Your task to perform on an android device: turn off notifications settings in the gmail app Image 0: 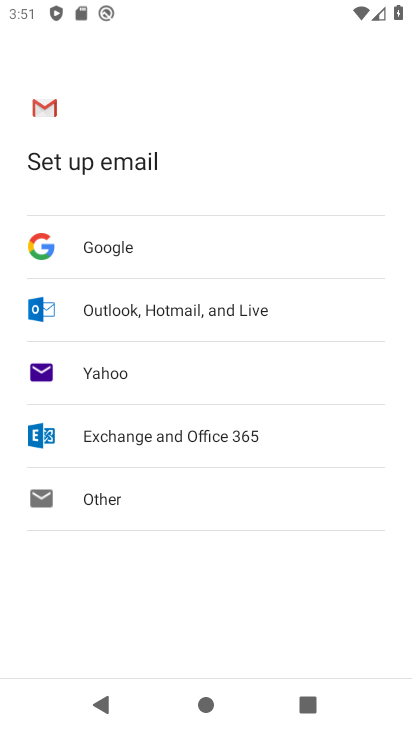
Step 0: press back button
Your task to perform on an android device: turn off notifications settings in the gmail app Image 1: 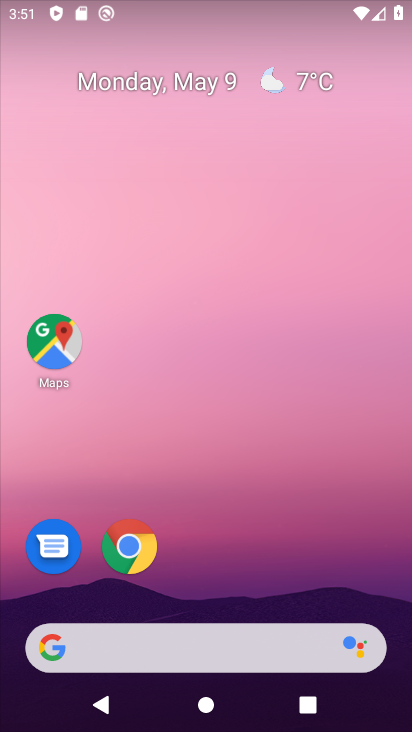
Step 1: drag from (211, 609) to (292, 218)
Your task to perform on an android device: turn off notifications settings in the gmail app Image 2: 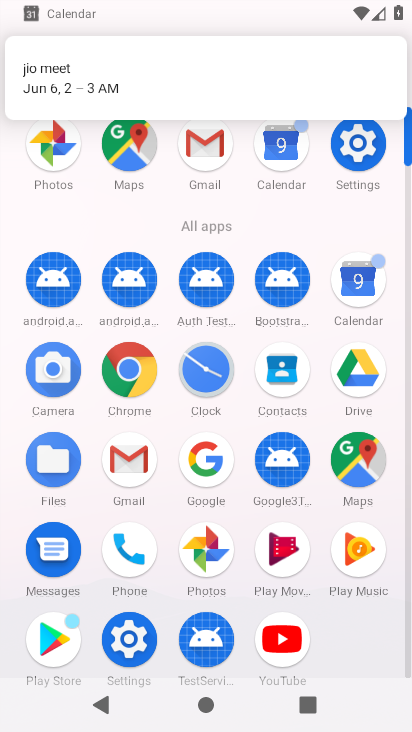
Step 2: click (135, 464)
Your task to perform on an android device: turn off notifications settings in the gmail app Image 3: 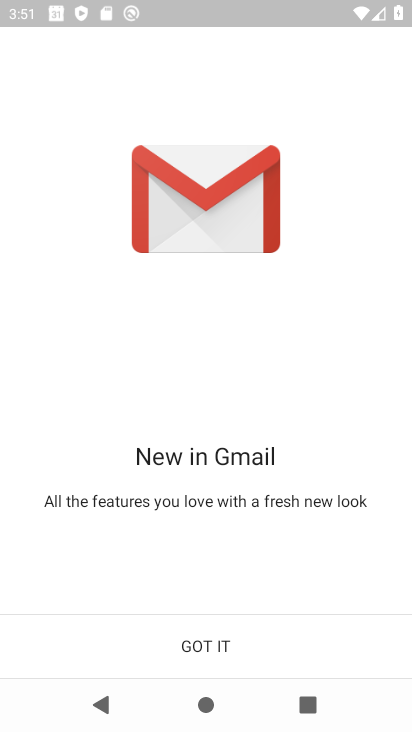
Step 3: click (233, 647)
Your task to perform on an android device: turn off notifications settings in the gmail app Image 4: 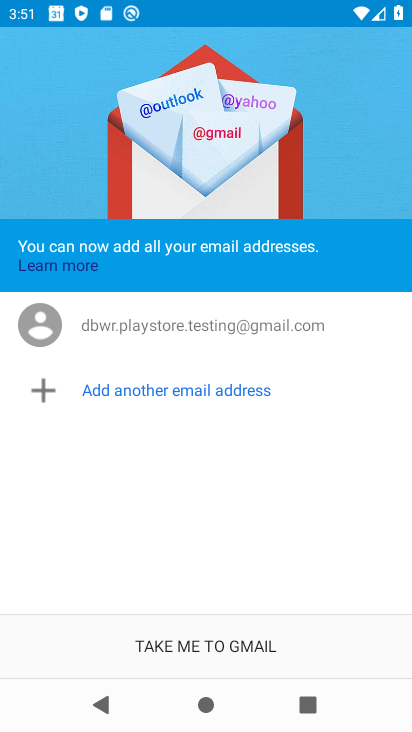
Step 4: click (233, 647)
Your task to perform on an android device: turn off notifications settings in the gmail app Image 5: 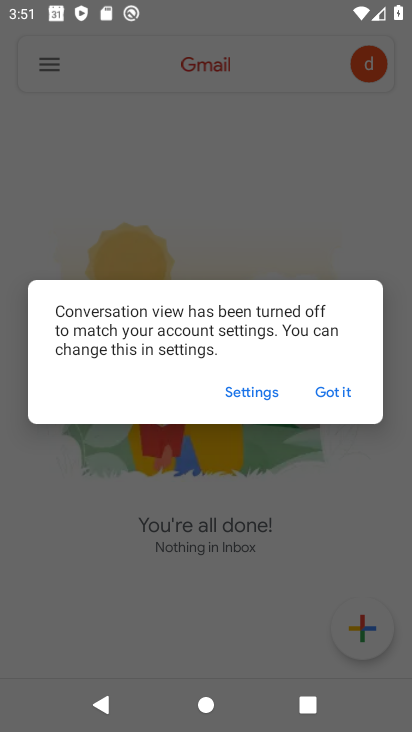
Step 5: click (362, 388)
Your task to perform on an android device: turn off notifications settings in the gmail app Image 6: 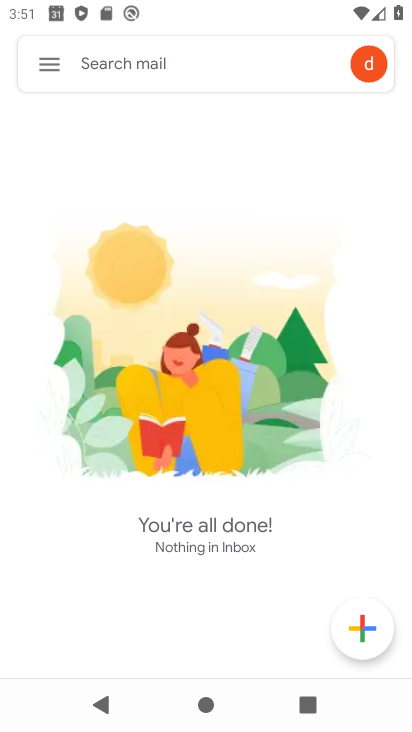
Step 6: click (61, 75)
Your task to perform on an android device: turn off notifications settings in the gmail app Image 7: 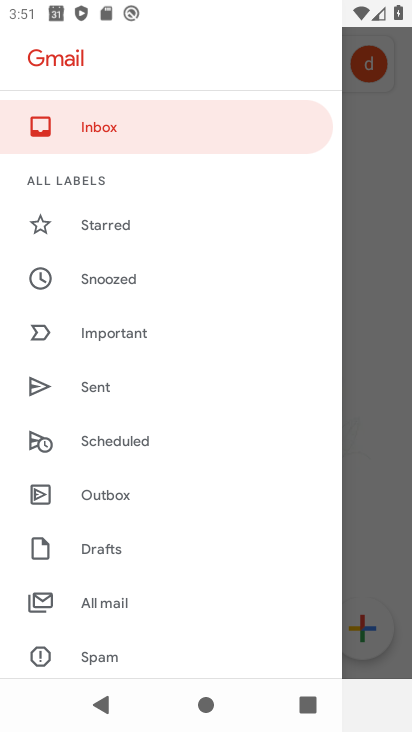
Step 7: drag from (136, 627) to (179, 397)
Your task to perform on an android device: turn off notifications settings in the gmail app Image 8: 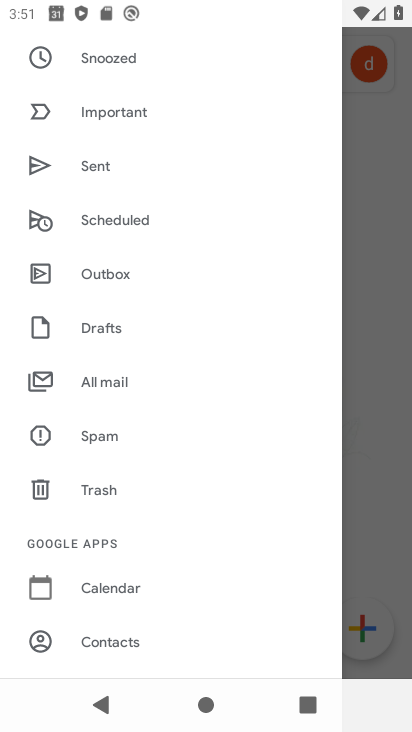
Step 8: drag from (173, 584) to (218, 437)
Your task to perform on an android device: turn off notifications settings in the gmail app Image 9: 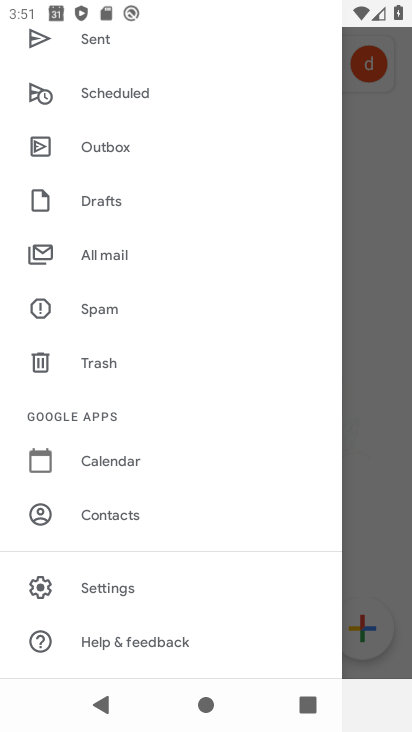
Step 9: click (125, 580)
Your task to perform on an android device: turn off notifications settings in the gmail app Image 10: 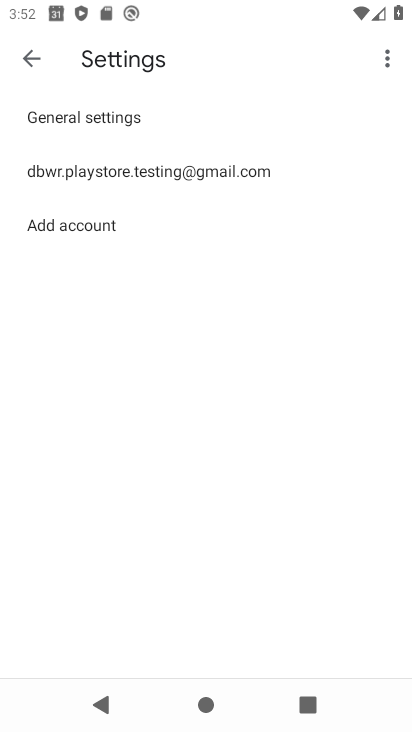
Step 10: click (278, 177)
Your task to perform on an android device: turn off notifications settings in the gmail app Image 11: 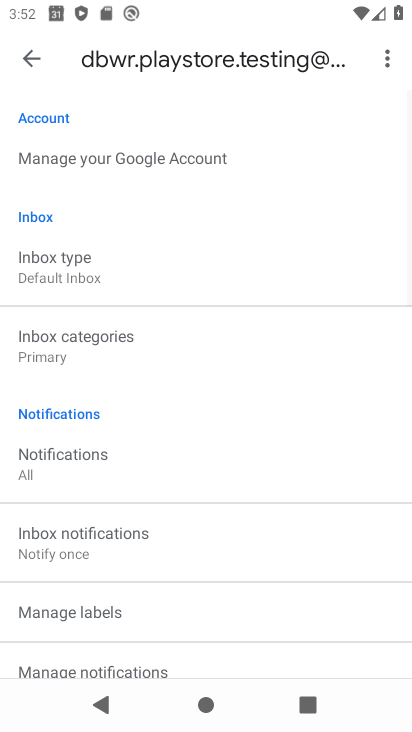
Step 11: drag from (76, 654) to (141, 531)
Your task to perform on an android device: turn off notifications settings in the gmail app Image 12: 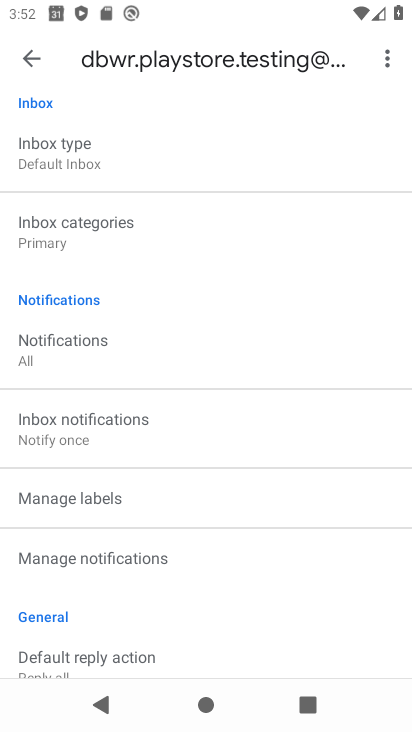
Step 12: click (140, 556)
Your task to perform on an android device: turn off notifications settings in the gmail app Image 13: 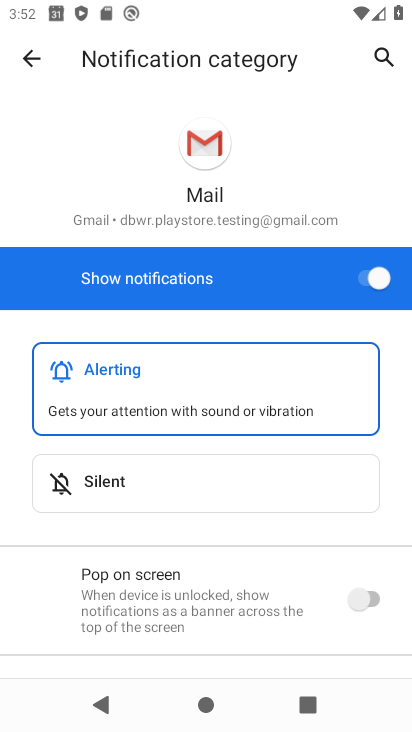
Step 13: click (360, 279)
Your task to perform on an android device: turn off notifications settings in the gmail app Image 14: 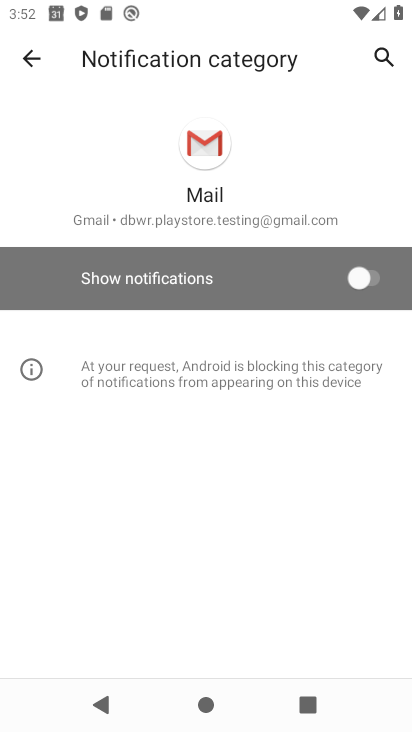
Step 14: task complete